Your task to perform on an android device: Open Android settings Image 0: 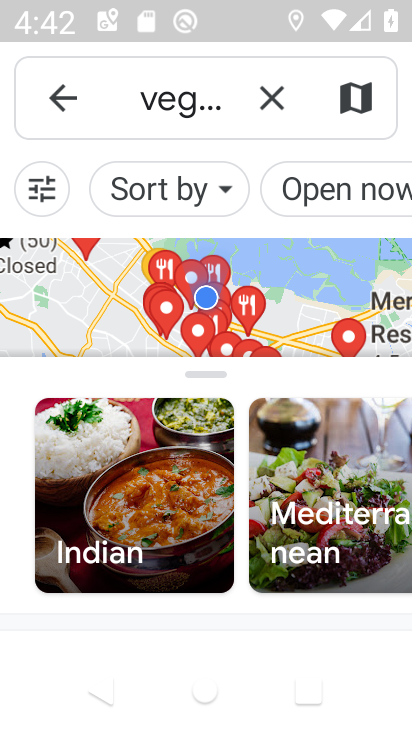
Step 0: press home button
Your task to perform on an android device: Open Android settings Image 1: 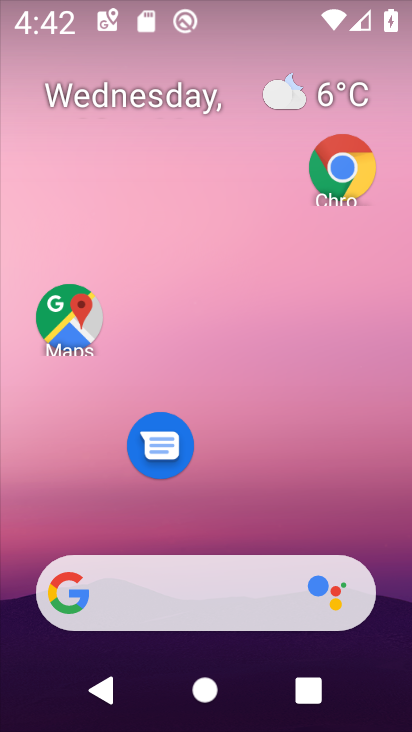
Step 1: drag from (239, 526) to (312, 15)
Your task to perform on an android device: Open Android settings Image 2: 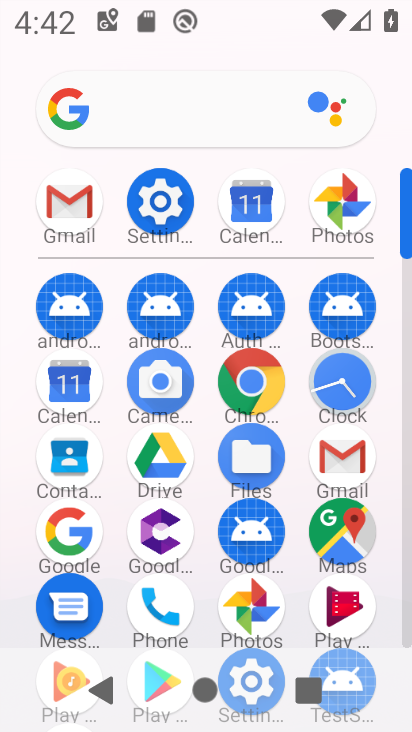
Step 2: click (159, 181)
Your task to perform on an android device: Open Android settings Image 3: 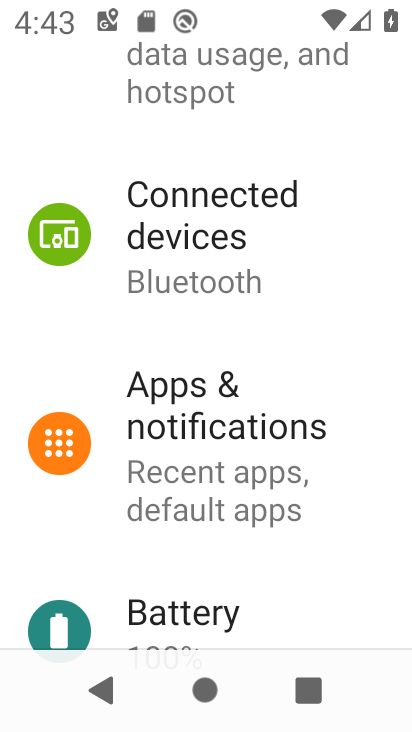
Step 3: task complete